Your task to perform on an android device: What's the weather going to be tomorrow? Image 0: 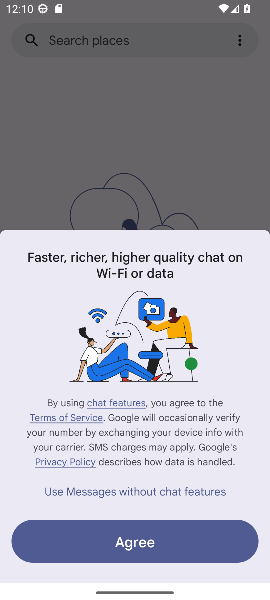
Step 0: click (160, 555)
Your task to perform on an android device: What's the weather going to be tomorrow? Image 1: 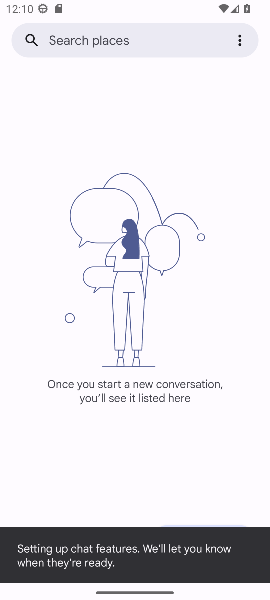
Step 1: task complete